Your task to perform on an android device: Open Google Maps Image 0: 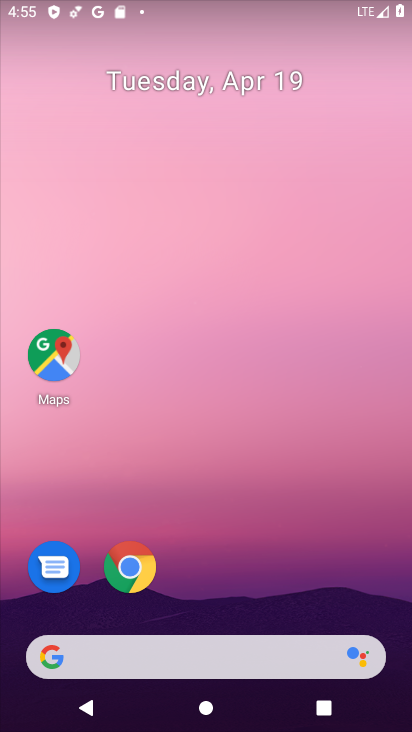
Step 0: drag from (315, 548) to (320, 11)
Your task to perform on an android device: Open Google Maps Image 1: 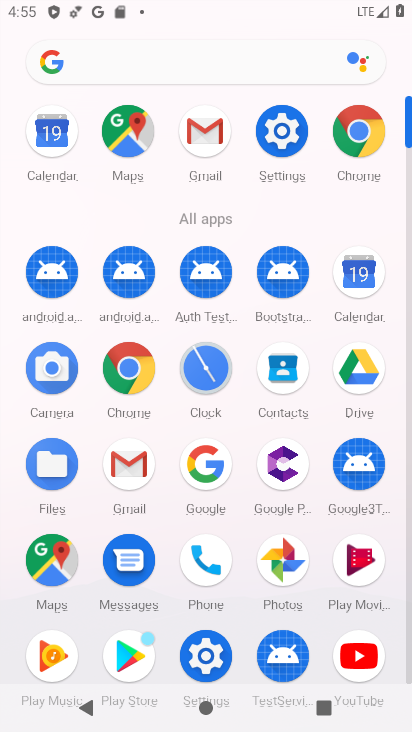
Step 1: drag from (315, 594) to (326, 162)
Your task to perform on an android device: Open Google Maps Image 2: 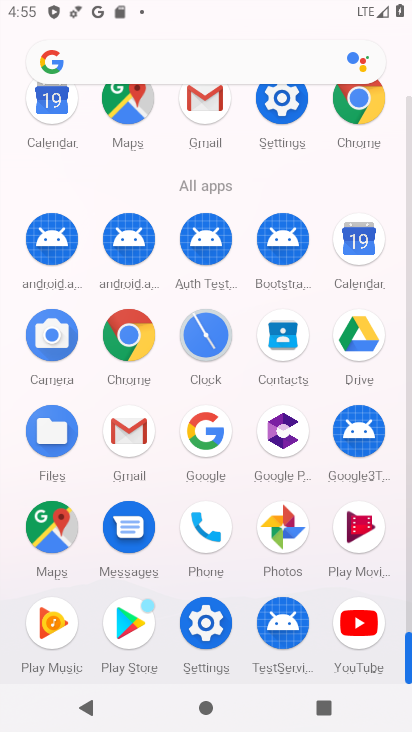
Step 2: click (54, 543)
Your task to perform on an android device: Open Google Maps Image 3: 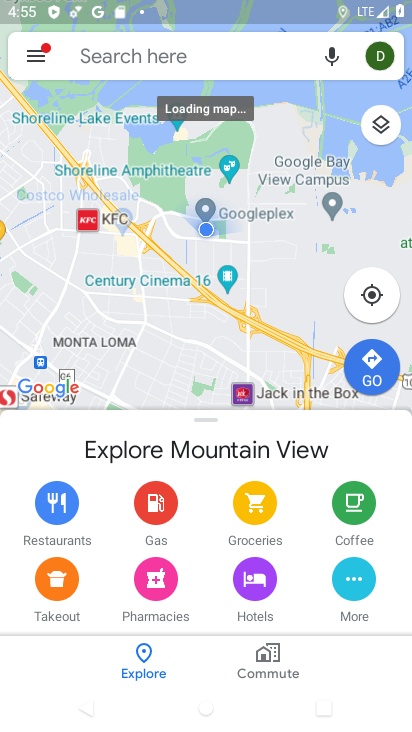
Step 3: click (293, 53)
Your task to perform on an android device: Open Google Maps Image 4: 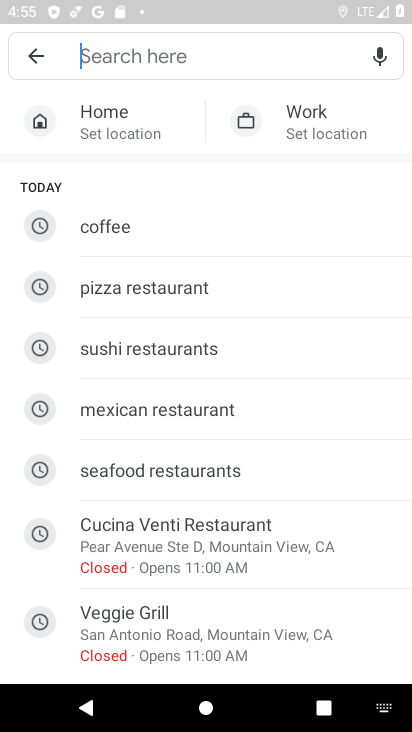
Step 4: click (41, 48)
Your task to perform on an android device: Open Google Maps Image 5: 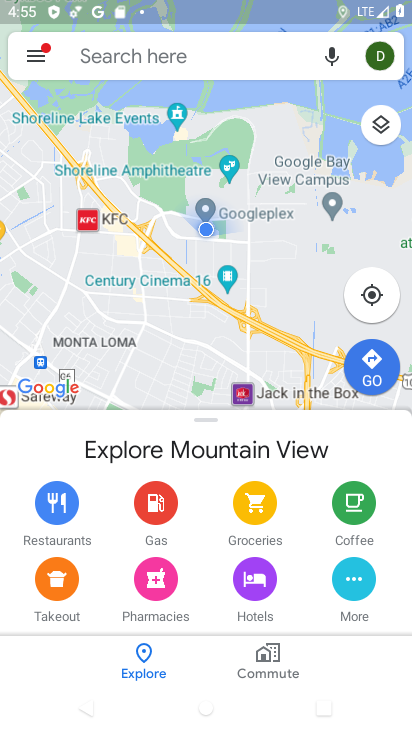
Step 5: task complete